Your task to perform on an android device: Open wifi settings Image 0: 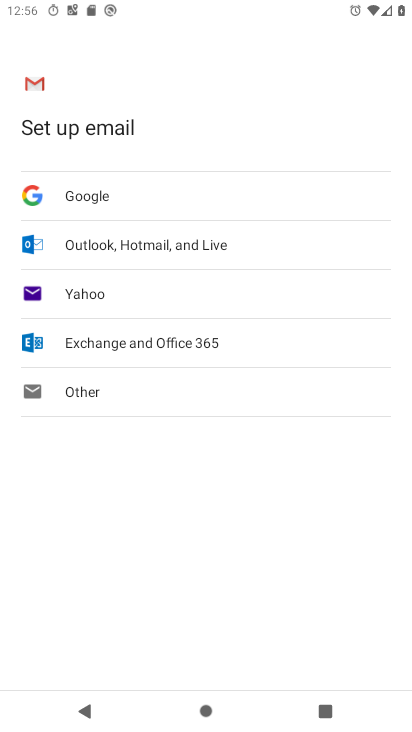
Step 0: press home button
Your task to perform on an android device: Open wifi settings Image 1: 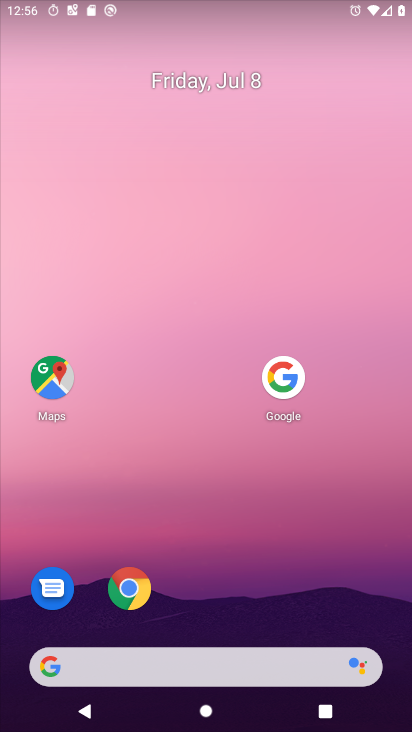
Step 1: drag from (155, 657) to (291, 0)
Your task to perform on an android device: Open wifi settings Image 2: 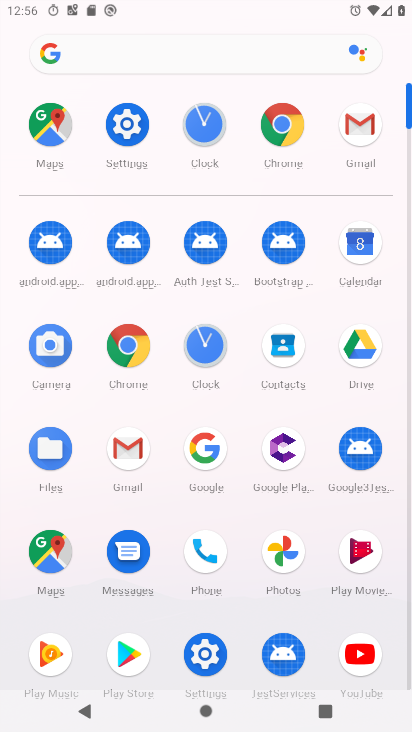
Step 2: click (126, 113)
Your task to perform on an android device: Open wifi settings Image 3: 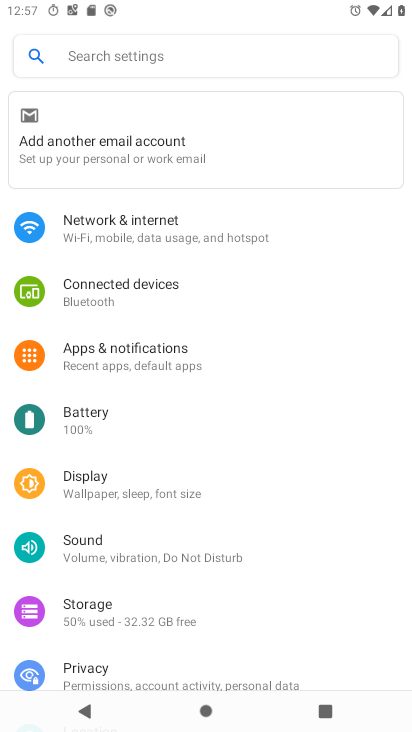
Step 3: click (183, 231)
Your task to perform on an android device: Open wifi settings Image 4: 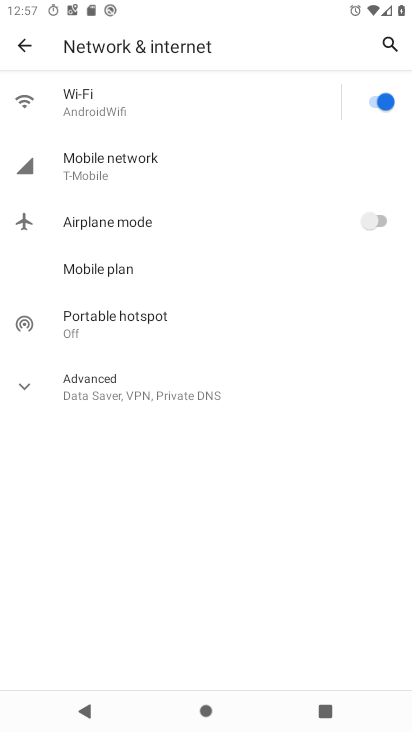
Step 4: click (97, 102)
Your task to perform on an android device: Open wifi settings Image 5: 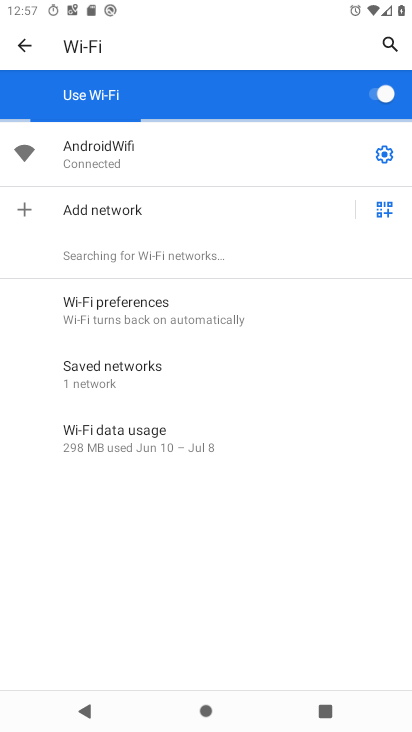
Step 5: task complete